Your task to perform on an android device: Turn on the flashlight Image 0: 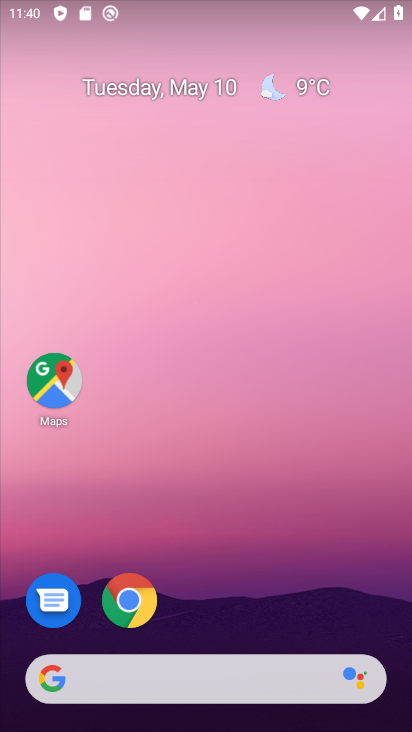
Step 0: drag from (205, 20) to (216, 543)
Your task to perform on an android device: Turn on the flashlight Image 1: 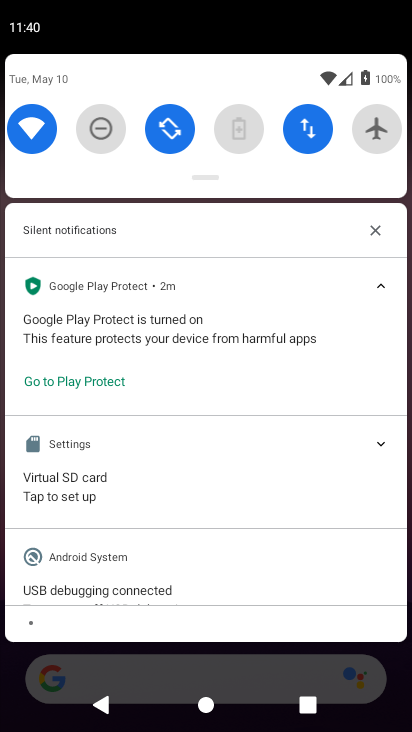
Step 1: task complete